Your task to perform on an android device: Search for Mexican restaurants on Maps Image 0: 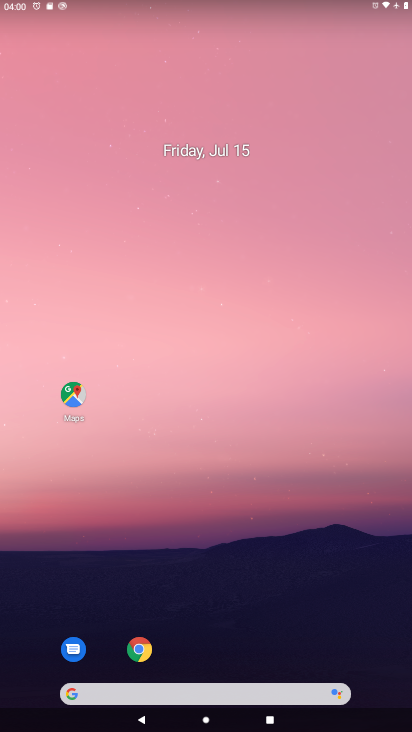
Step 0: click (73, 394)
Your task to perform on an android device: Search for Mexican restaurants on Maps Image 1: 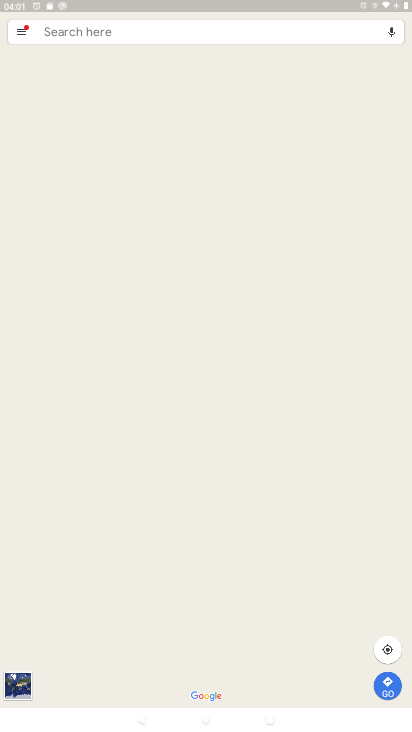
Step 1: click (95, 26)
Your task to perform on an android device: Search for Mexican restaurants on Maps Image 2: 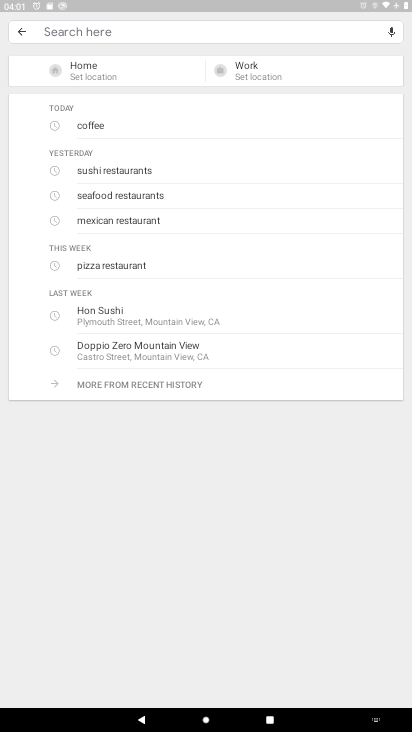
Step 2: type "mexican restaurants"
Your task to perform on an android device: Search for Mexican restaurants on Maps Image 3: 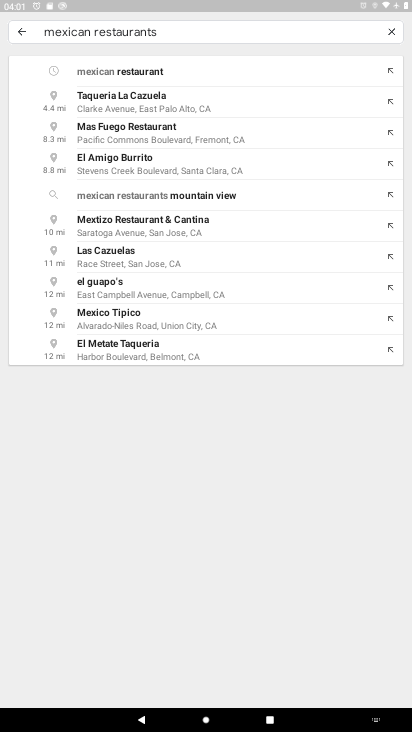
Step 3: click (112, 68)
Your task to perform on an android device: Search for Mexican restaurants on Maps Image 4: 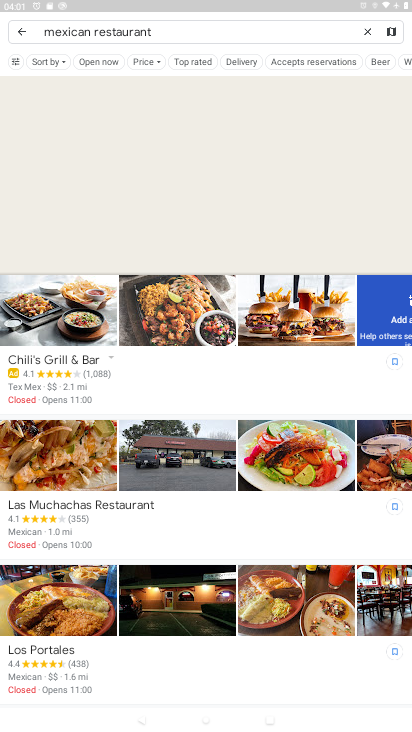
Step 4: task complete